Your task to perform on an android device: Go to location settings Image 0: 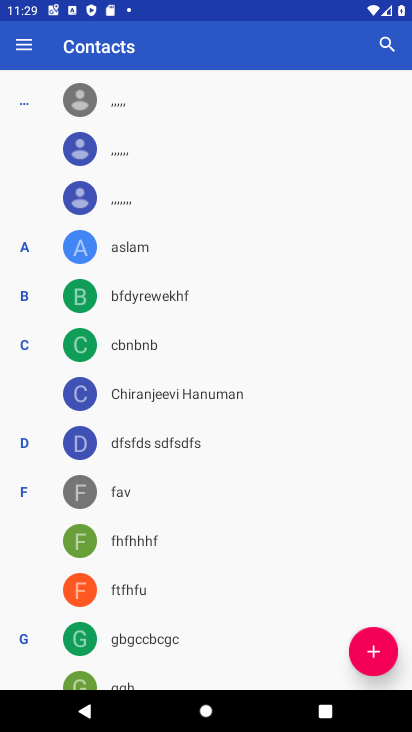
Step 0: press home button
Your task to perform on an android device: Go to location settings Image 1: 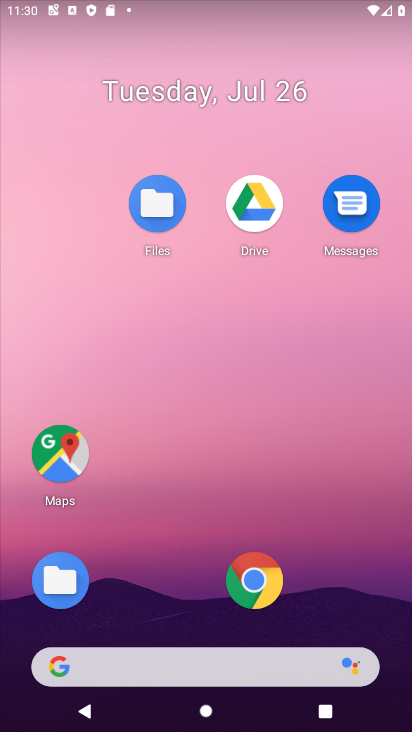
Step 1: drag from (121, 580) to (105, 6)
Your task to perform on an android device: Go to location settings Image 2: 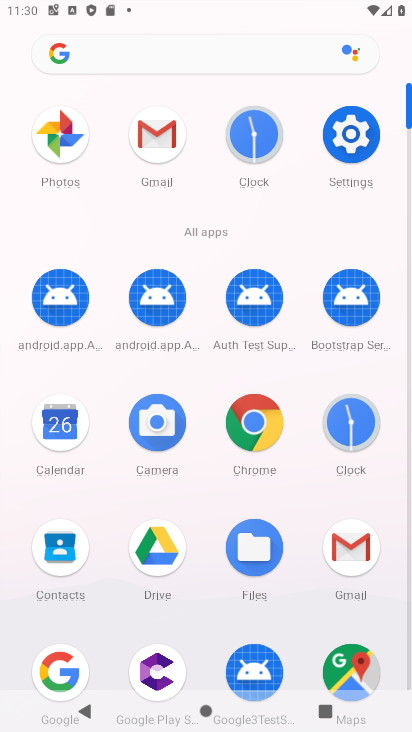
Step 2: click (336, 161)
Your task to perform on an android device: Go to location settings Image 3: 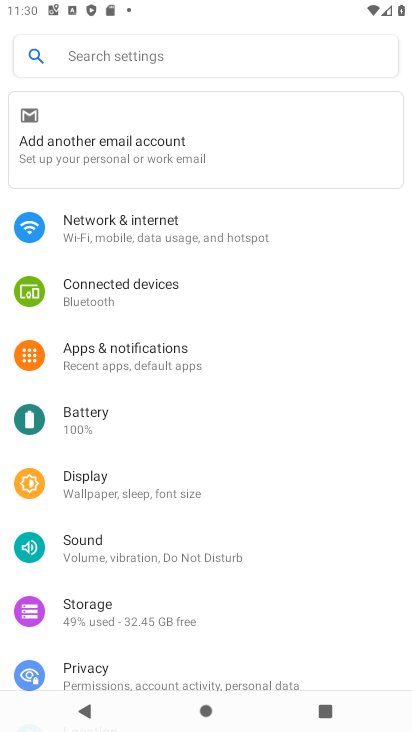
Step 3: drag from (114, 649) to (203, 383)
Your task to perform on an android device: Go to location settings Image 4: 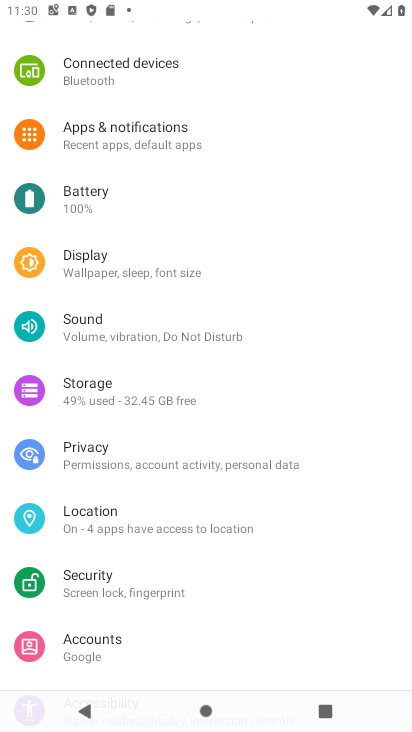
Step 4: click (201, 509)
Your task to perform on an android device: Go to location settings Image 5: 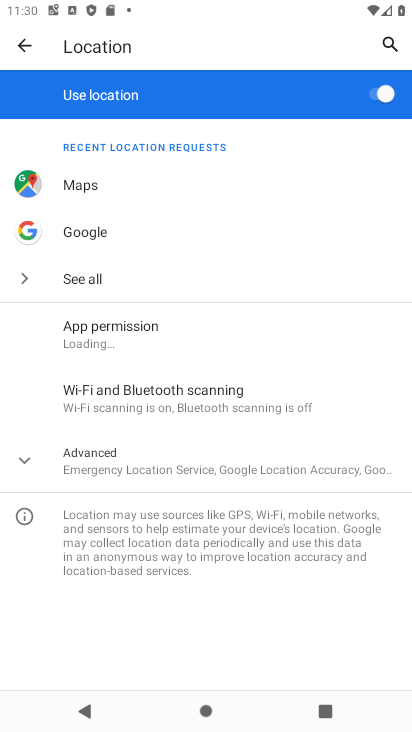
Step 5: task complete